Your task to perform on an android device: change notifications settings Image 0: 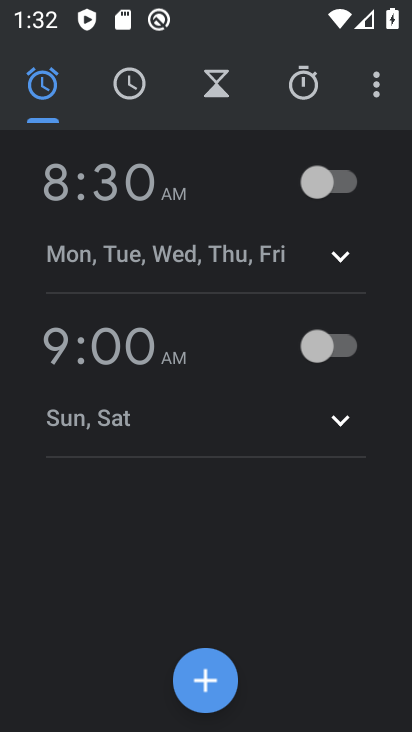
Step 0: press home button
Your task to perform on an android device: change notifications settings Image 1: 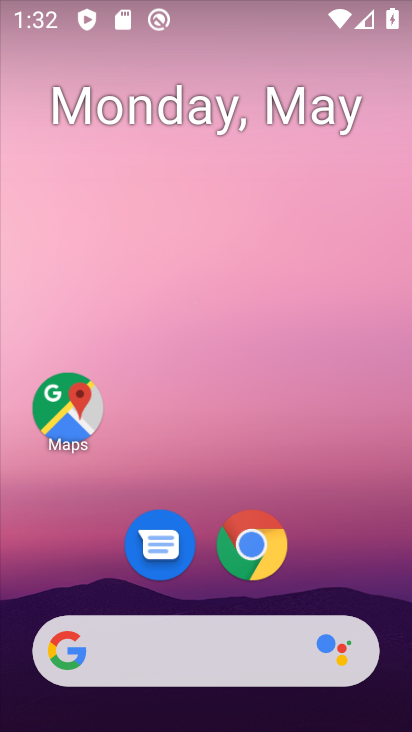
Step 1: drag from (245, 705) to (267, 120)
Your task to perform on an android device: change notifications settings Image 2: 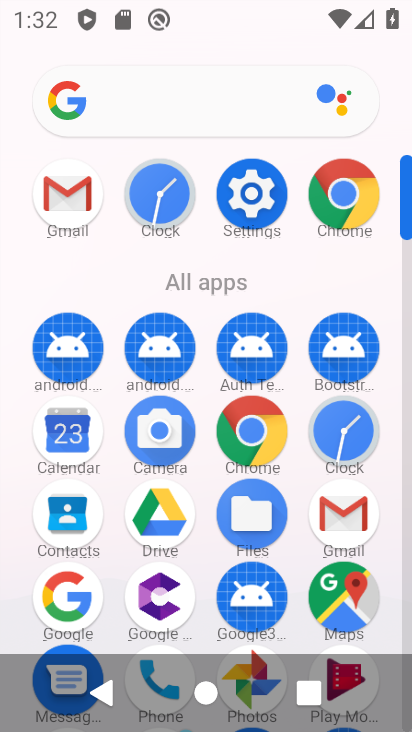
Step 2: click (239, 178)
Your task to perform on an android device: change notifications settings Image 3: 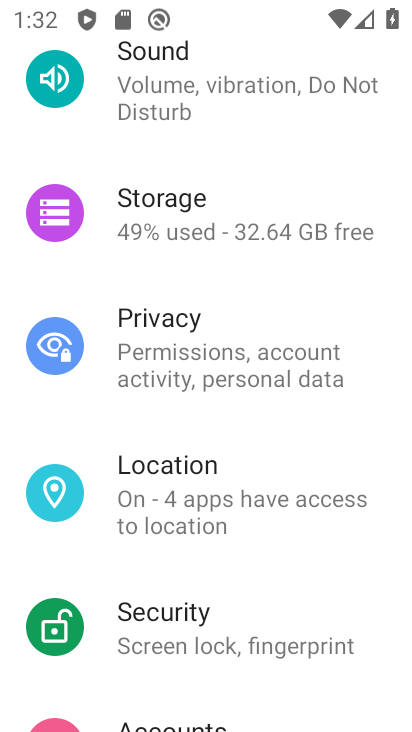
Step 3: drag from (275, 119) to (199, 712)
Your task to perform on an android device: change notifications settings Image 4: 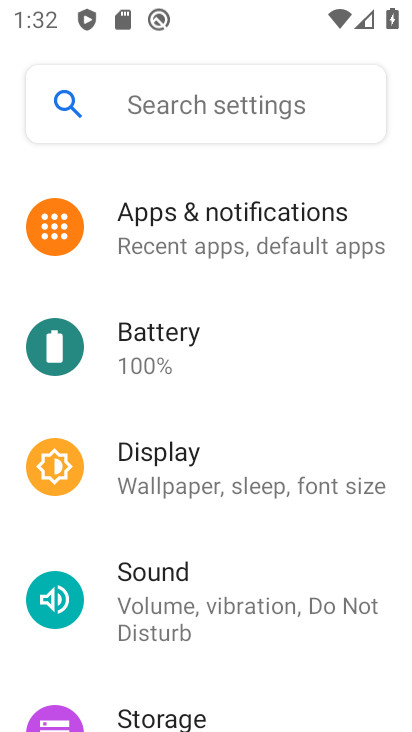
Step 4: click (305, 232)
Your task to perform on an android device: change notifications settings Image 5: 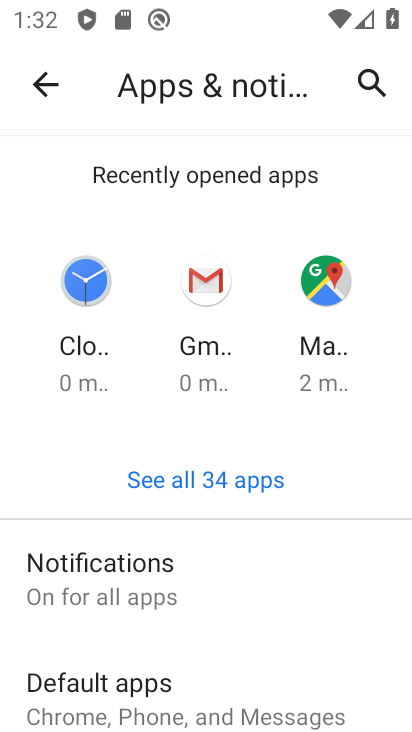
Step 5: drag from (342, 624) to (280, 133)
Your task to perform on an android device: change notifications settings Image 6: 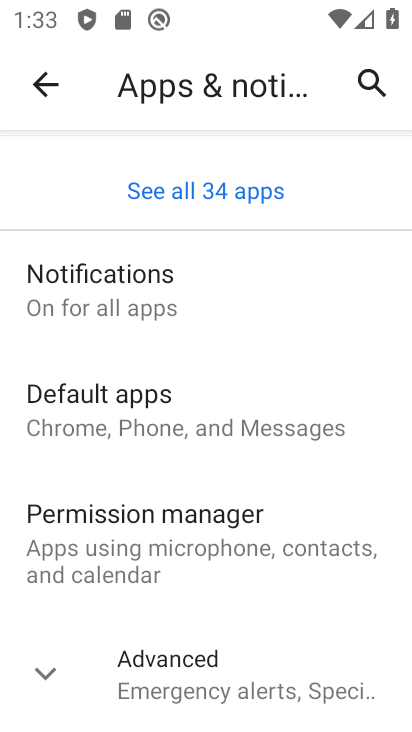
Step 6: click (193, 290)
Your task to perform on an android device: change notifications settings Image 7: 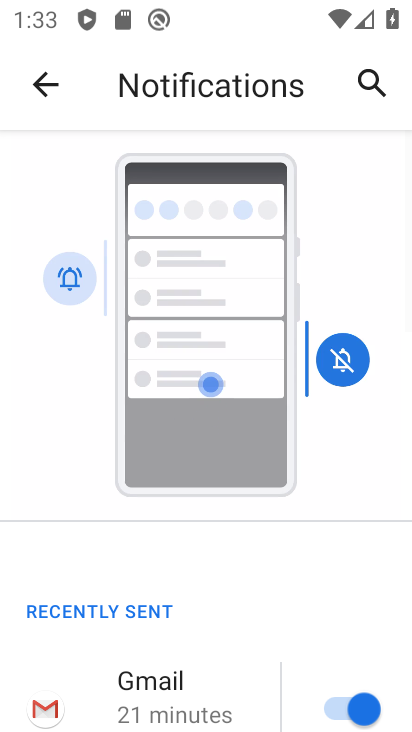
Step 7: click (362, 709)
Your task to perform on an android device: change notifications settings Image 8: 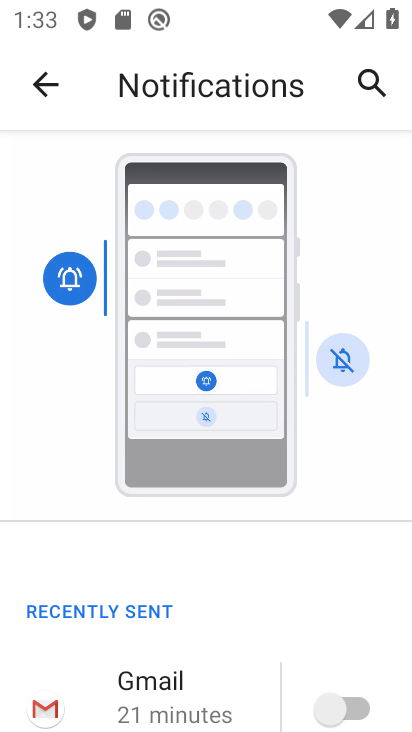
Step 8: task complete